Your task to perform on an android device: Open Wikipedia Image 0: 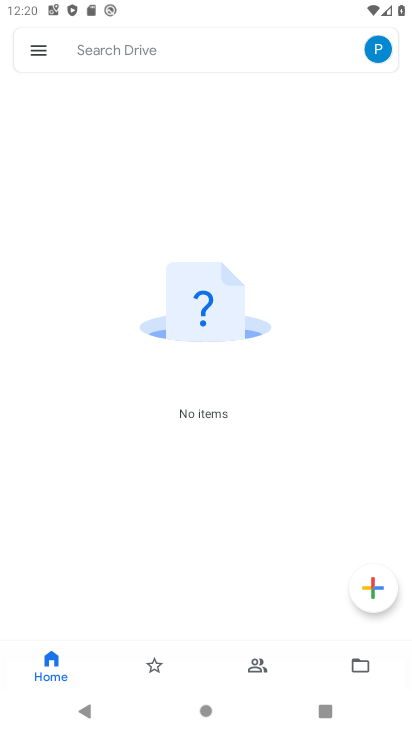
Step 0: press home button
Your task to perform on an android device: Open Wikipedia Image 1: 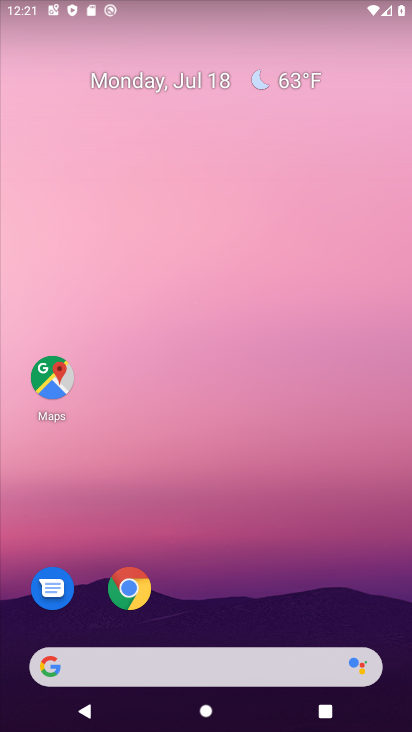
Step 1: drag from (246, 705) to (250, 211)
Your task to perform on an android device: Open Wikipedia Image 2: 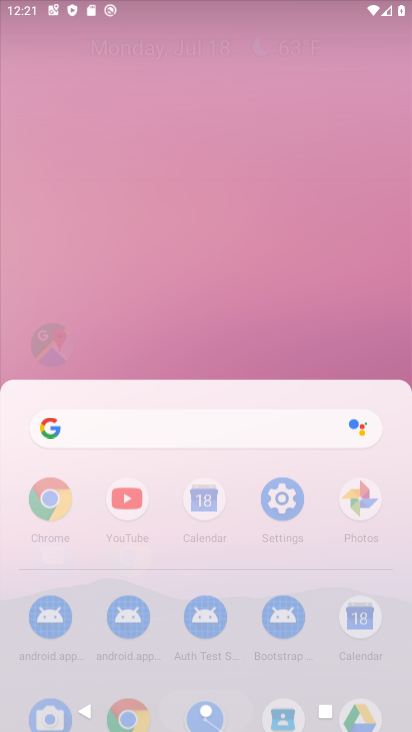
Step 2: click (250, 101)
Your task to perform on an android device: Open Wikipedia Image 3: 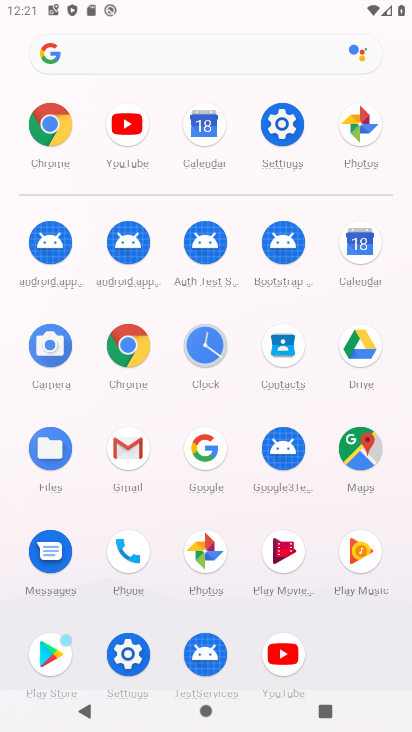
Step 3: click (50, 121)
Your task to perform on an android device: Open Wikipedia Image 4: 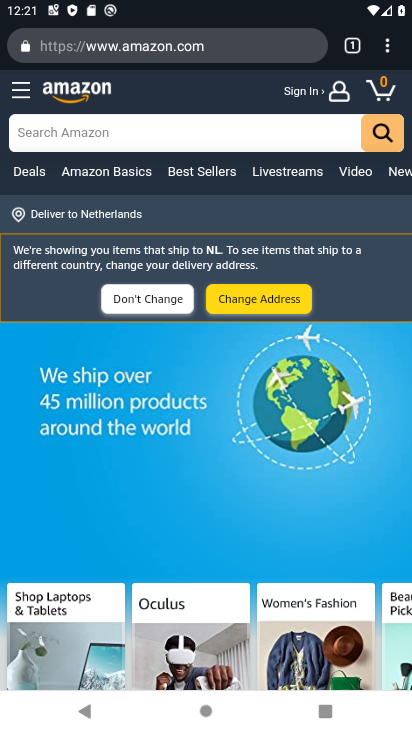
Step 4: click (390, 53)
Your task to perform on an android device: Open Wikipedia Image 5: 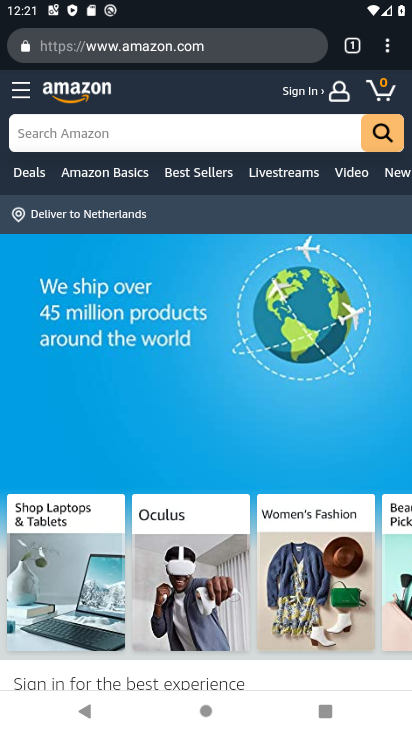
Step 5: click (389, 53)
Your task to perform on an android device: Open Wikipedia Image 6: 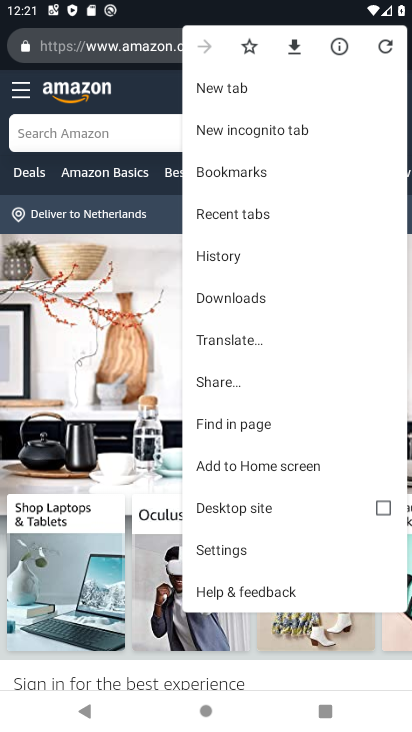
Step 6: click (214, 90)
Your task to perform on an android device: Open Wikipedia Image 7: 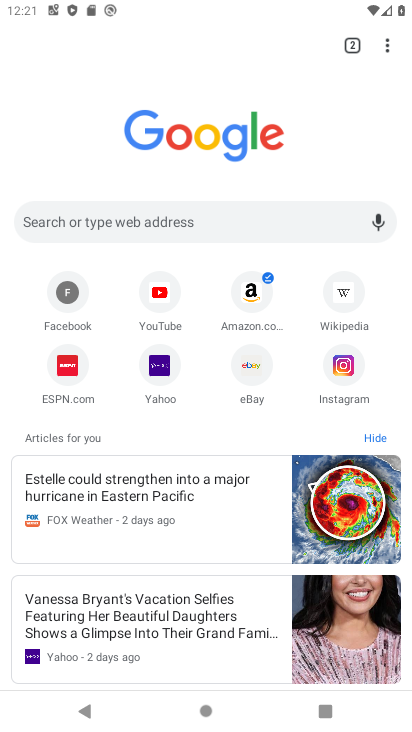
Step 7: click (337, 293)
Your task to perform on an android device: Open Wikipedia Image 8: 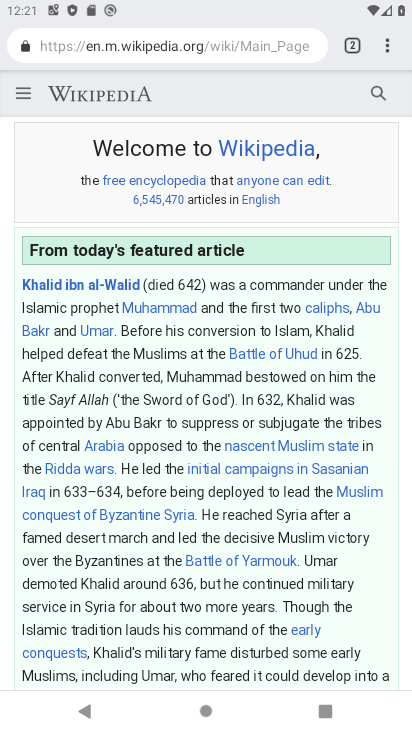
Step 8: task complete